Your task to perform on an android device: turn on improve location accuracy Image 0: 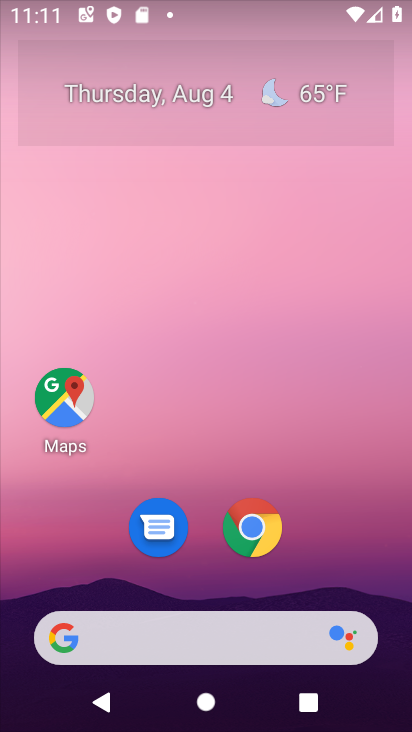
Step 0: drag from (278, 386) to (378, 0)
Your task to perform on an android device: turn on improve location accuracy Image 1: 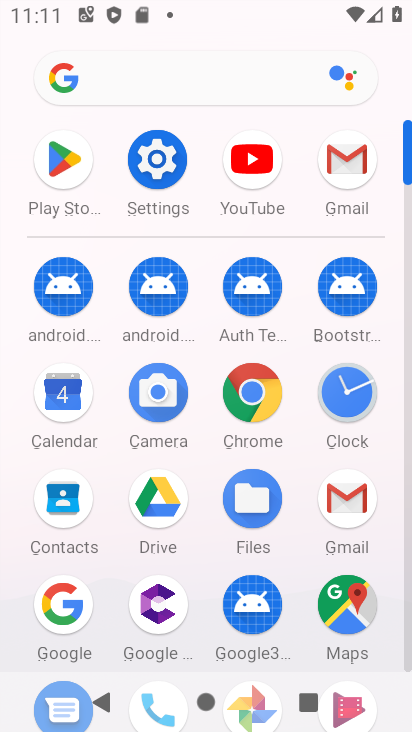
Step 1: click (146, 153)
Your task to perform on an android device: turn on improve location accuracy Image 2: 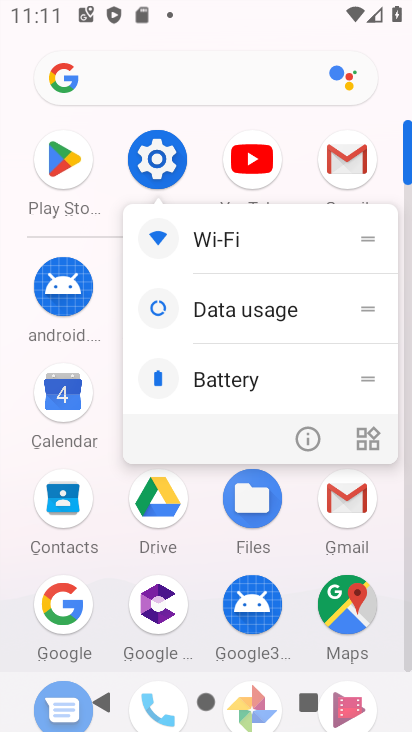
Step 2: click (168, 140)
Your task to perform on an android device: turn on improve location accuracy Image 3: 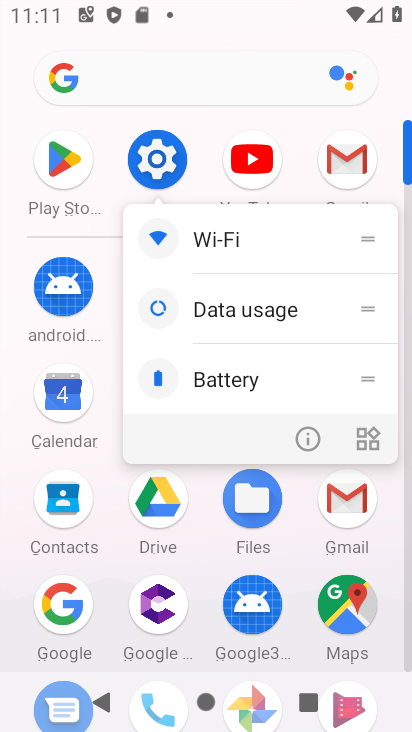
Step 3: click (168, 140)
Your task to perform on an android device: turn on improve location accuracy Image 4: 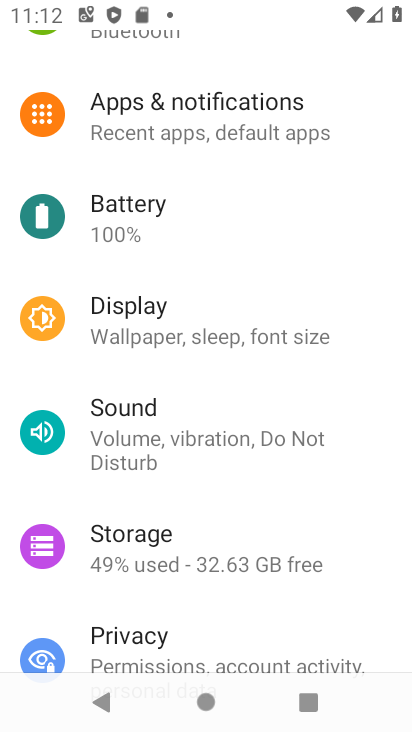
Step 4: drag from (196, 630) to (209, 115)
Your task to perform on an android device: turn on improve location accuracy Image 5: 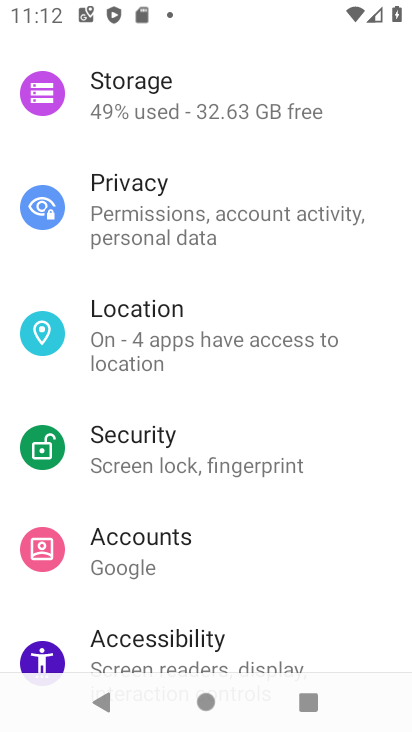
Step 5: click (198, 342)
Your task to perform on an android device: turn on improve location accuracy Image 6: 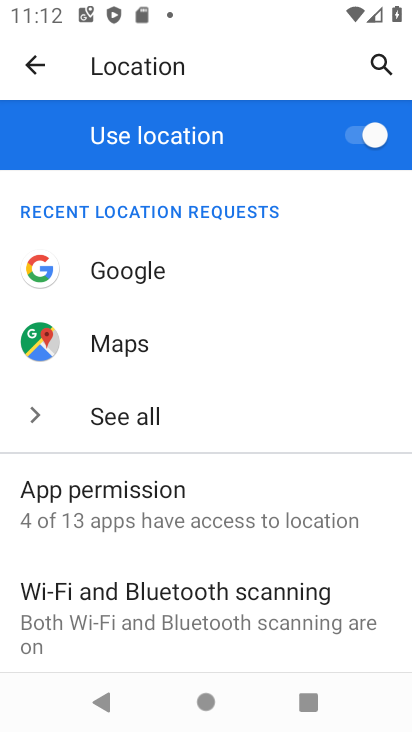
Step 6: drag from (207, 606) to (280, 190)
Your task to perform on an android device: turn on improve location accuracy Image 7: 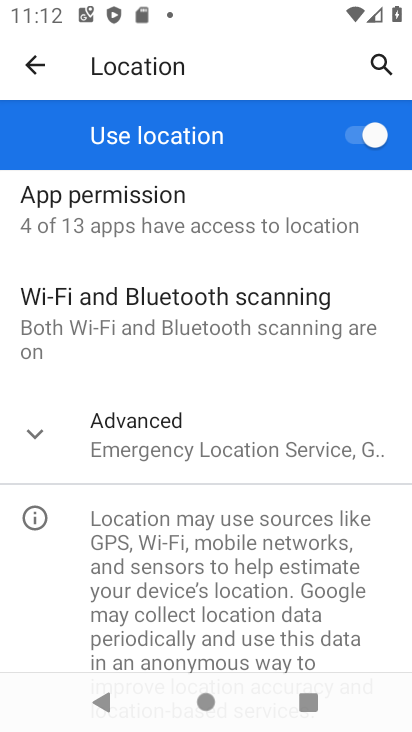
Step 7: click (207, 453)
Your task to perform on an android device: turn on improve location accuracy Image 8: 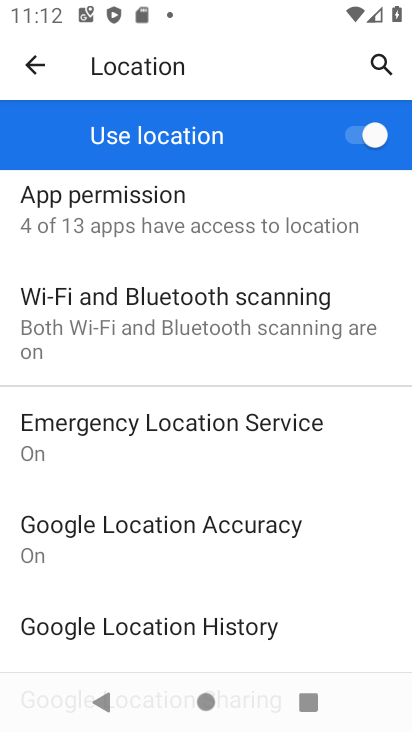
Step 8: click (271, 528)
Your task to perform on an android device: turn on improve location accuracy Image 9: 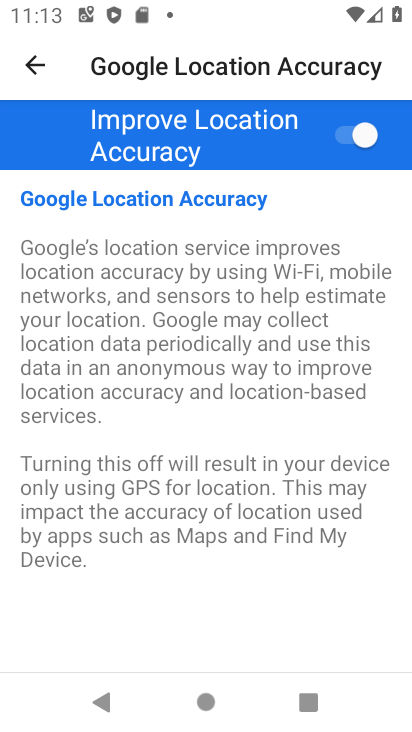
Step 9: task complete